Your task to perform on an android device: delete the emails in spam in the gmail app Image 0: 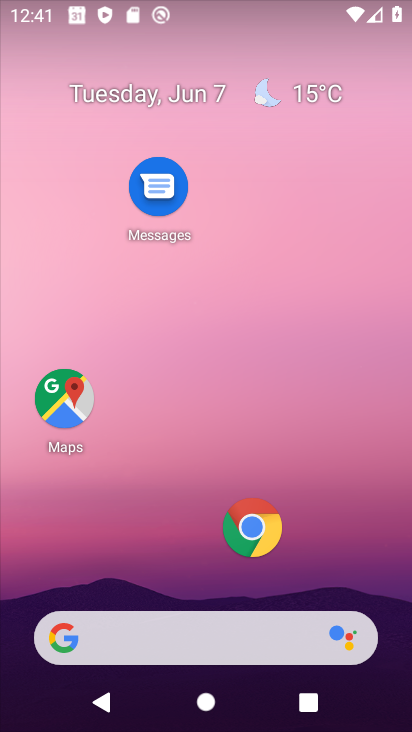
Step 0: drag from (184, 573) to (197, 351)
Your task to perform on an android device: delete the emails in spam in the gmail app Image 1: 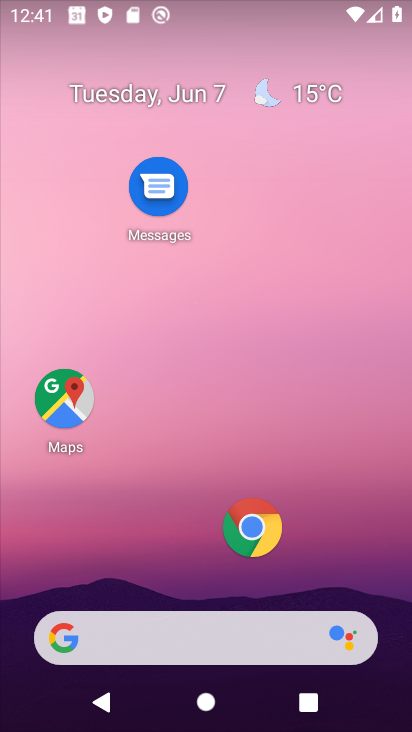
Step 1: drag from (226, 595) to (225, 376)
Your task to perform on an android device: delete the emails in spam in the gmail app Image 2: 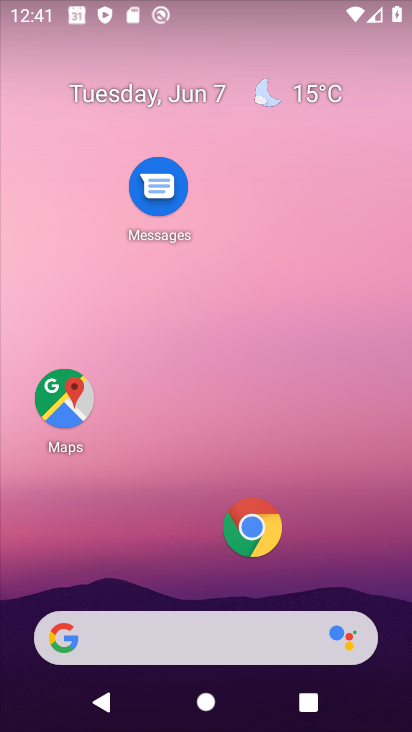
Step 2: drag from (180, 612) to (187, 285)
Your task to perform on an android device: delete the emails in spam in the gmail app Image 3: 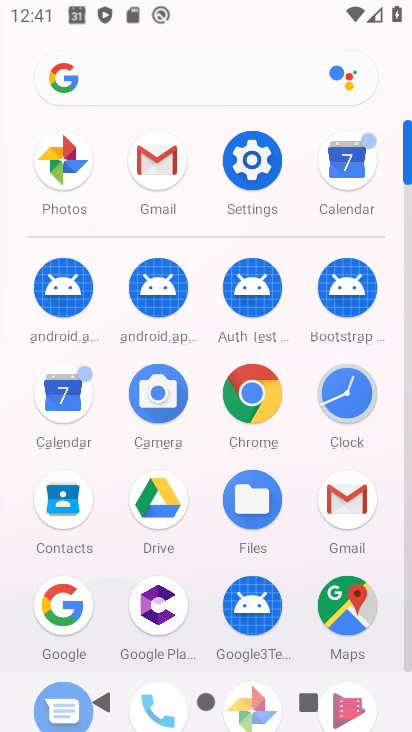
Step 3: click (355, 503)
Your task to perform on an android device: delete the emails in spam in the gmail app Image 4: 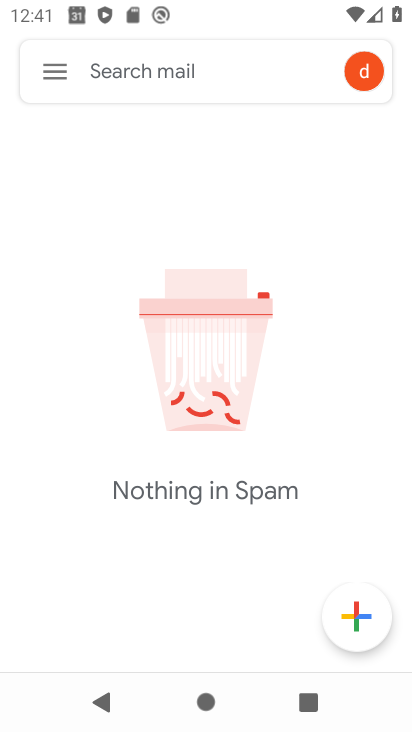
Step 4: click (52, 68)
Your task to perform on an android device: delete the emails in spam in the gmail app Image 5: 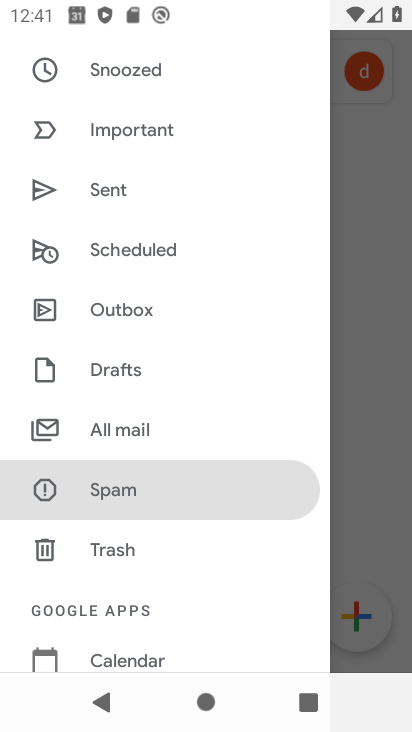
Step 5: task complete